Your task to perform on an android device: Search for Mexican restaurants on Maps Image 0: 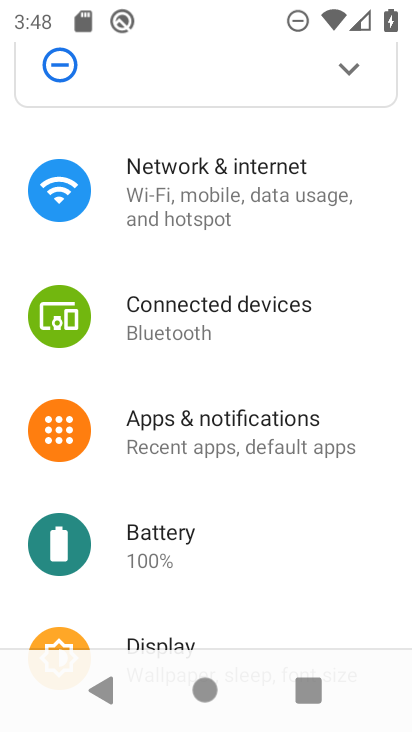
Step 0: drag from (288, 461) to (280, 18)
Your task to perform on an android device: Search for Mexican restaurants on Maps Image 1: 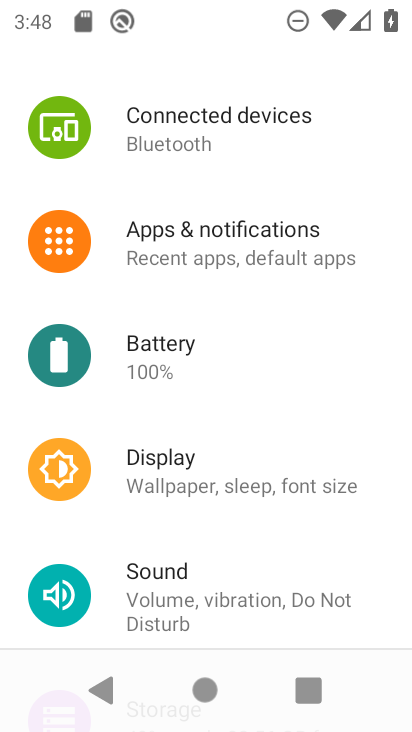
Step 1: press home button
Your task to perform on an android device: Search for Mexican restaurants on Maps Image 2: 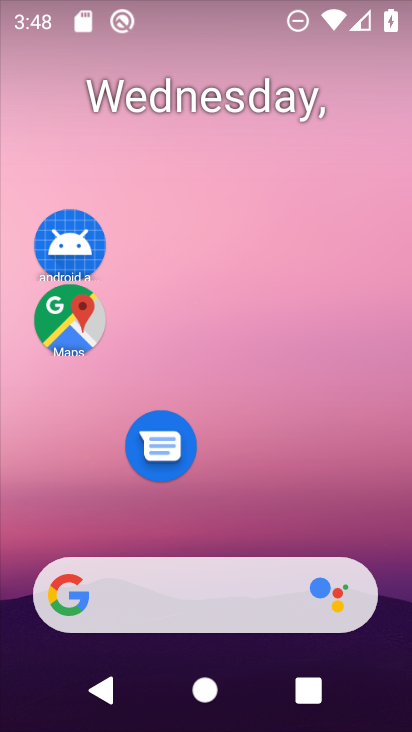
Step 2: drag from (288, 505) to (295, 237)
Your task to perform on an android device: Search for Mexican restaurants on Maps Image 3: 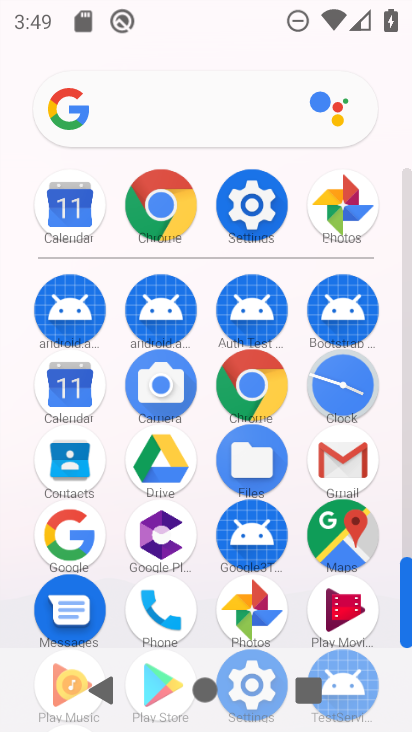
Step 3: click (333, 534)
Your task to perform on an android device: Search for Mexican restaurants on Maps Image 4: 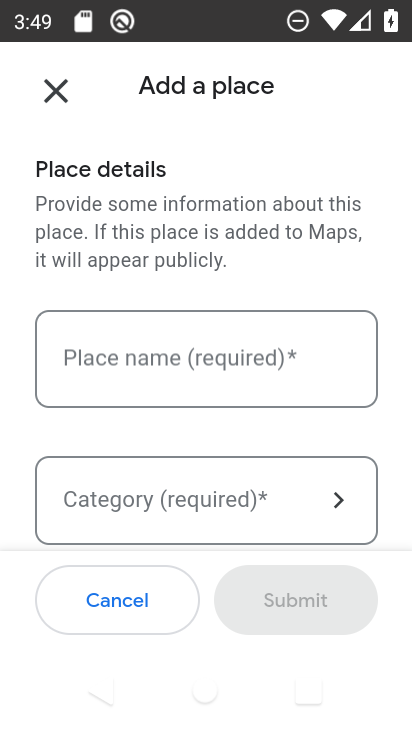
Step 4: click (64, 73)
Your task to perform on an android device: Search for Mexican restaurants on Maps Image 5: 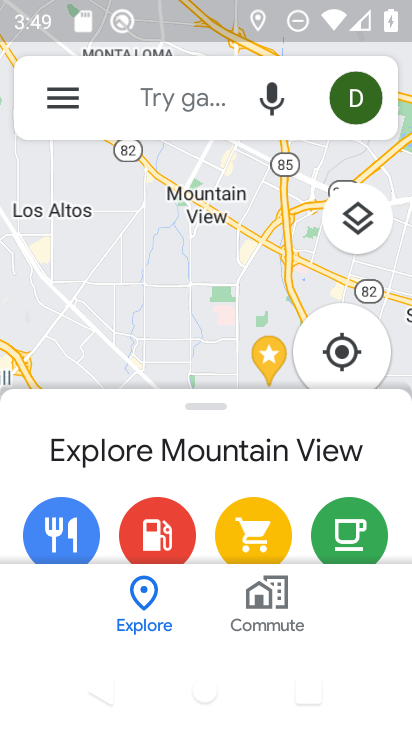
Step 5: click (186, 96)
Your task to perform on an android device: Search for Mexican restaurants on Maps Image 6: 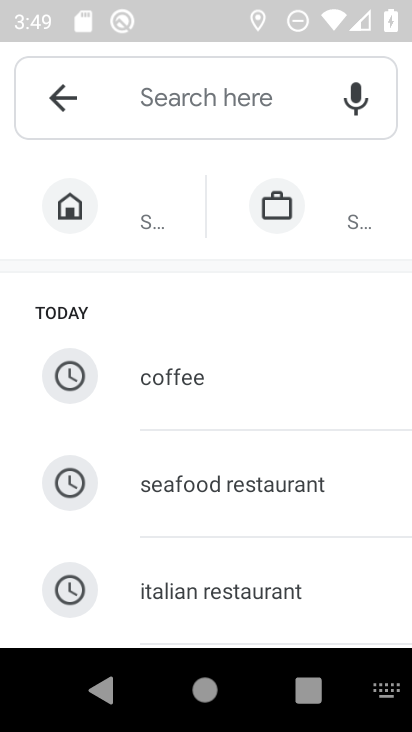
Step 6: type "mexican"
Your task to perform on an android device: Search for Mexican restaurants on Maps Image 7: 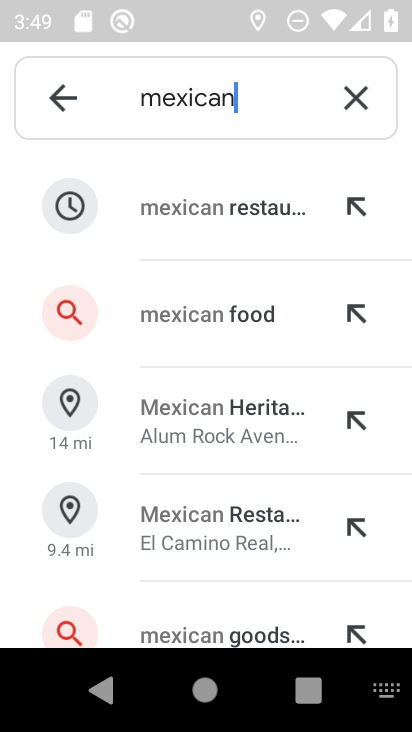
Step 7: click (287, 238)
Your task to perform on an android device: Search for Mexican restaurants on Maps Image 8: 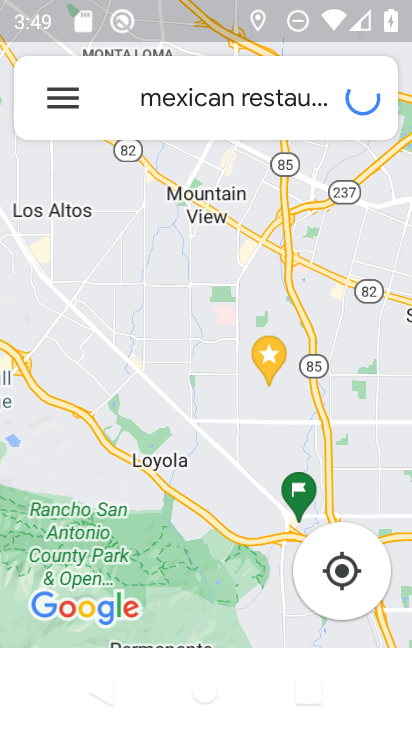
Step 8: task complete